Your task to perform on an android device: Open calendar and show me the second week of next month Image 0: 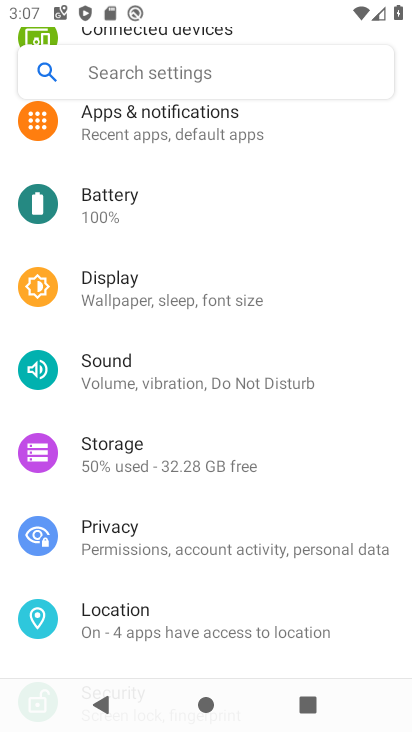
Step 0: task complete